Your task to perform on an android device: Turn off the flashlight Image 0: 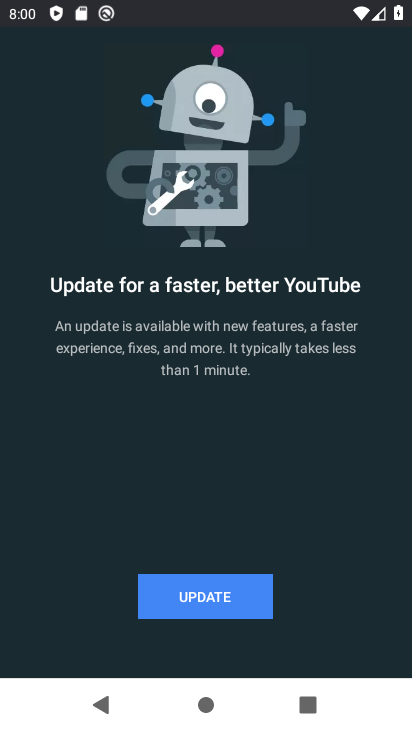
Step 0: press back button
Your task to perform on an android device: Turn off the flashlight Image 1: 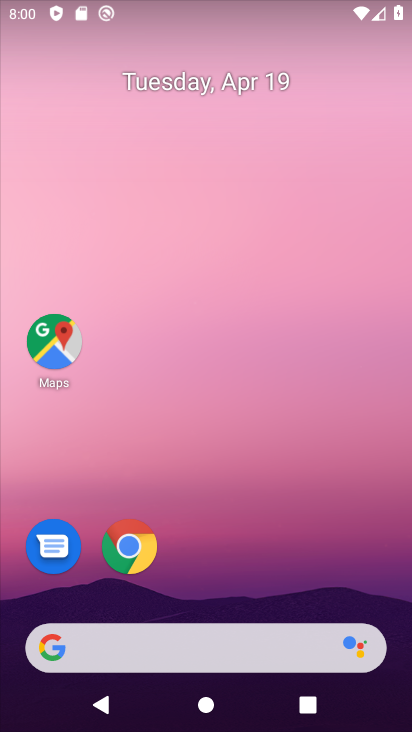
Step 1: drag from (63, 600) to (275, 197)
Your task to perform on an android device: Turn off the flashlight Image 2: 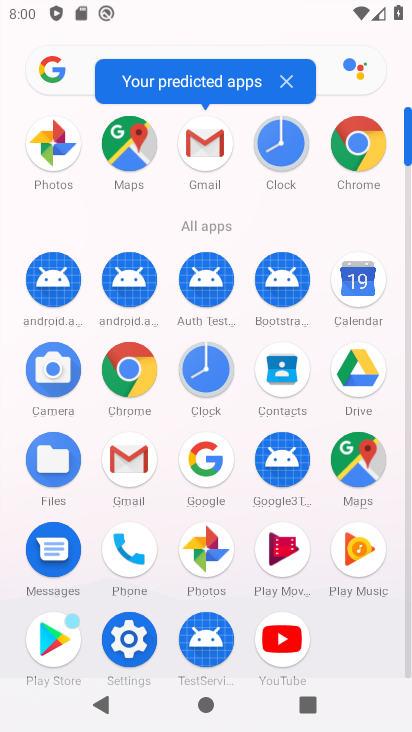
Step 2: click (121, 634)
Your task to perform on an android device: Turn off the flashlight Image 3: 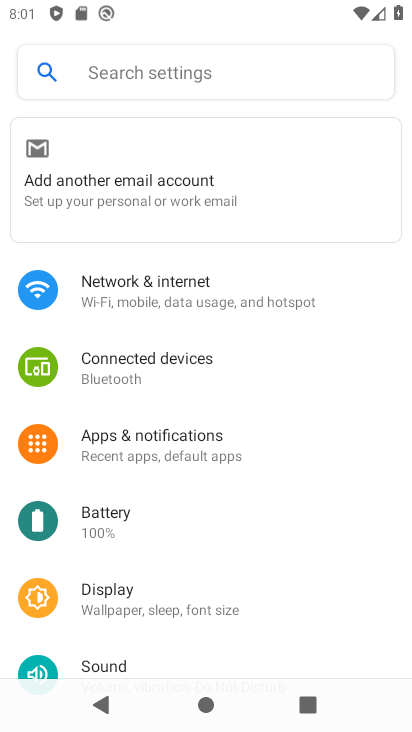
Step 3: drag from (42, 553) to (215, 254)
Your task to perform on an android device: Turn off the flashlight Image 4: 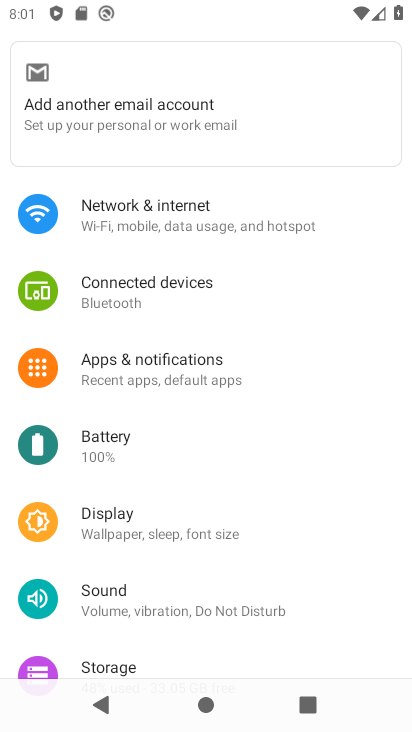
Step 4: click (104, 512)
Your task to perform on an android device: Turn off the flashlight Image 5: 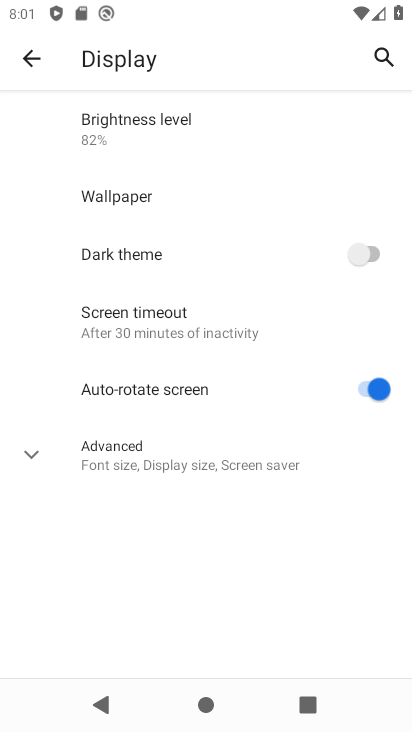
Step 5: task complete